Your task to perform on an android device: Go to CNN.com Image 0: 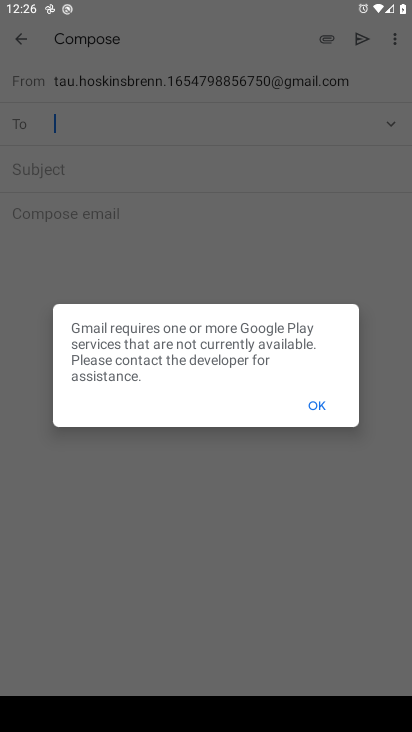
Step 0: press home button
Your task to perform on an android device: Go to CNN.com Image 1: 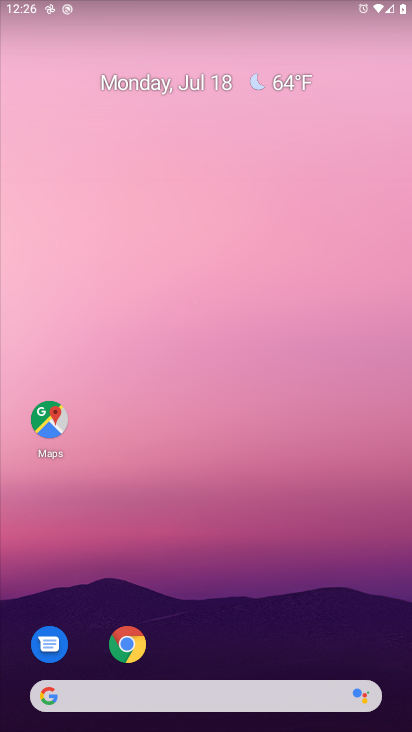
Step 1: click (49, 697)
Your task to perform on an android device: Go to CNN.com Image 2: 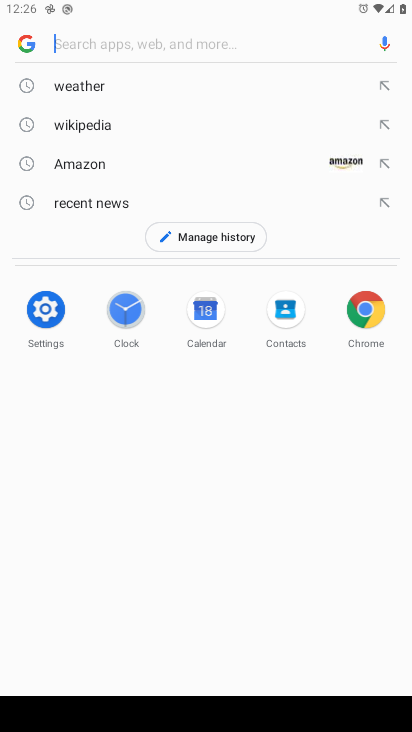
Step 2: type "CNN.com"
Your task to perform on an android device: Go to CNN.com Image 3: 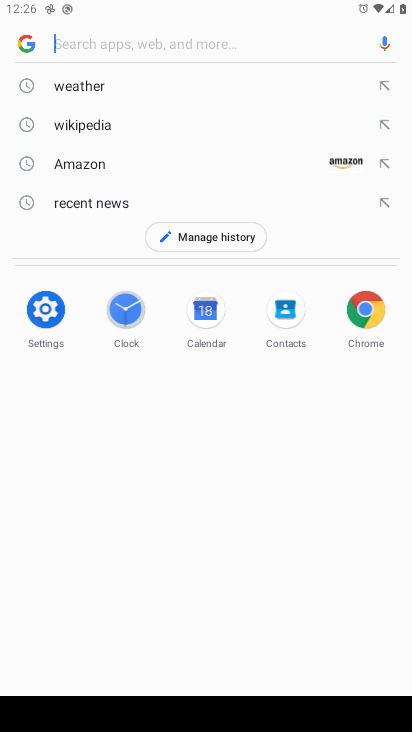
Step 3: click (102, 42)
Your task to perform on an android device: Go to CNN.com Image 4: 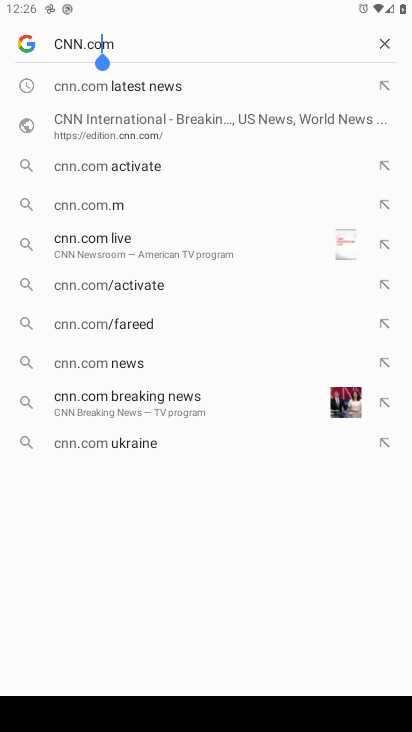
Step 4: press enter
Your task to perform on an android device: Go to CNN.com Image 5: 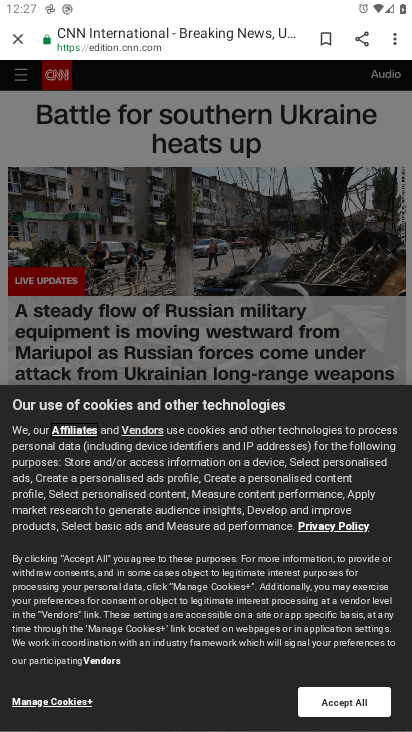
Step 5: task complete